Your task to perform on an android device: Clear the cart on ebay. Image 0: 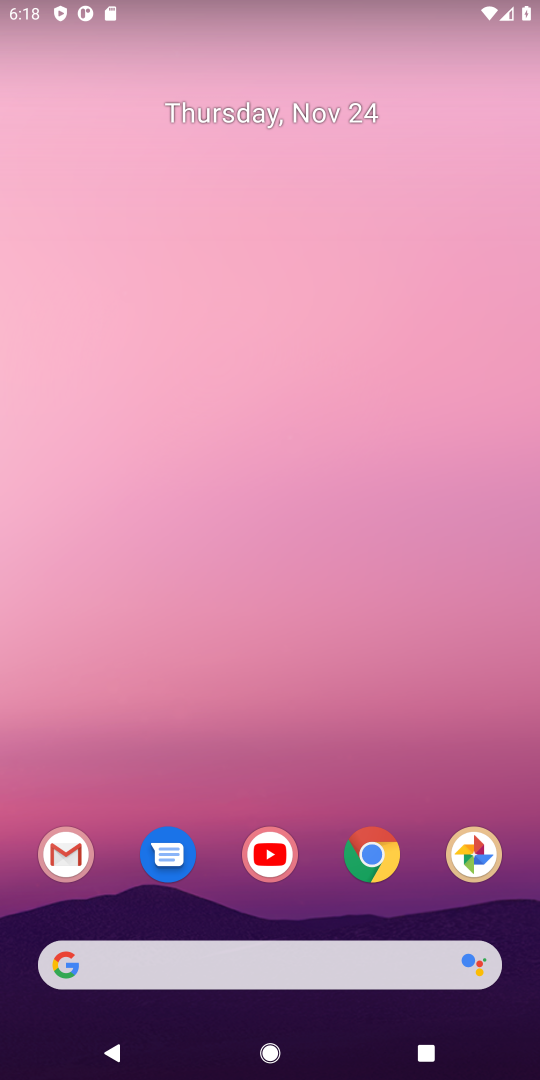
Step 0: click (376, 869)
Your task to perform on an android device: Clear the cart on ebay. Image 1: 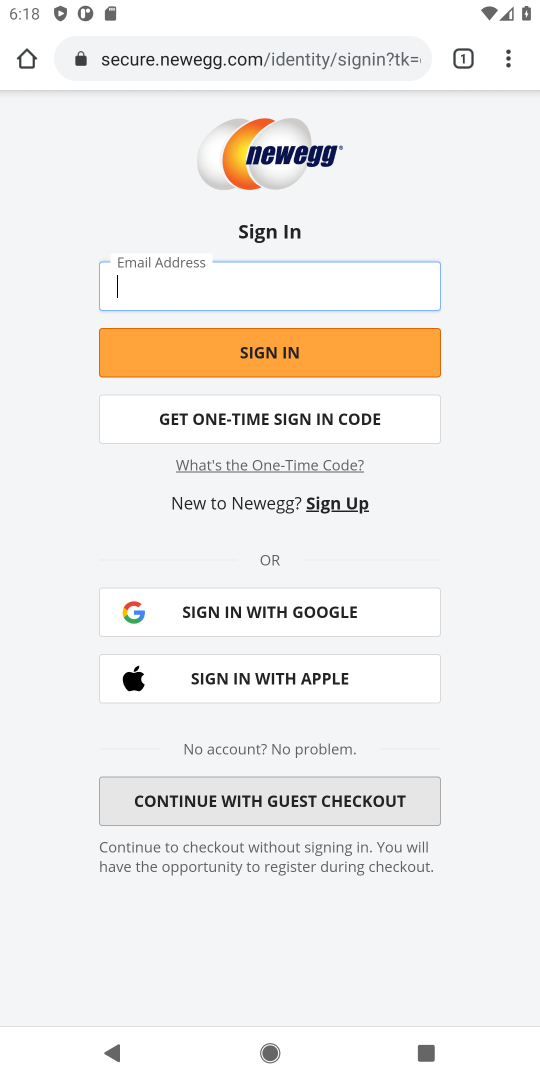
Step 1: click (188, 59)
Your task to perform on an android device: Clear the cart on ebay. Image 2: 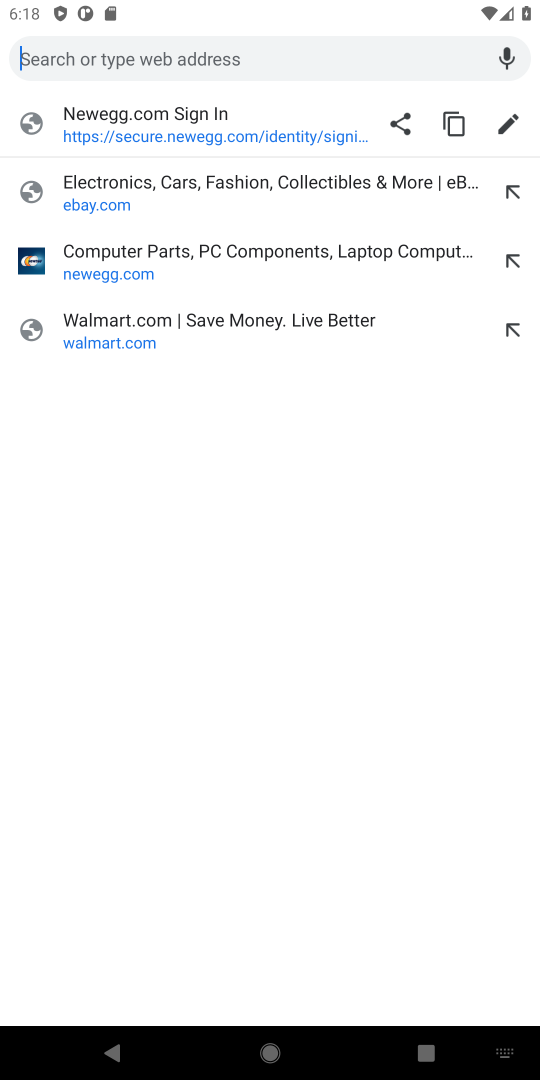
Step 2: click (85, 210)
Your task to perform on an android device: Clear the cart on ebay. Image 3: 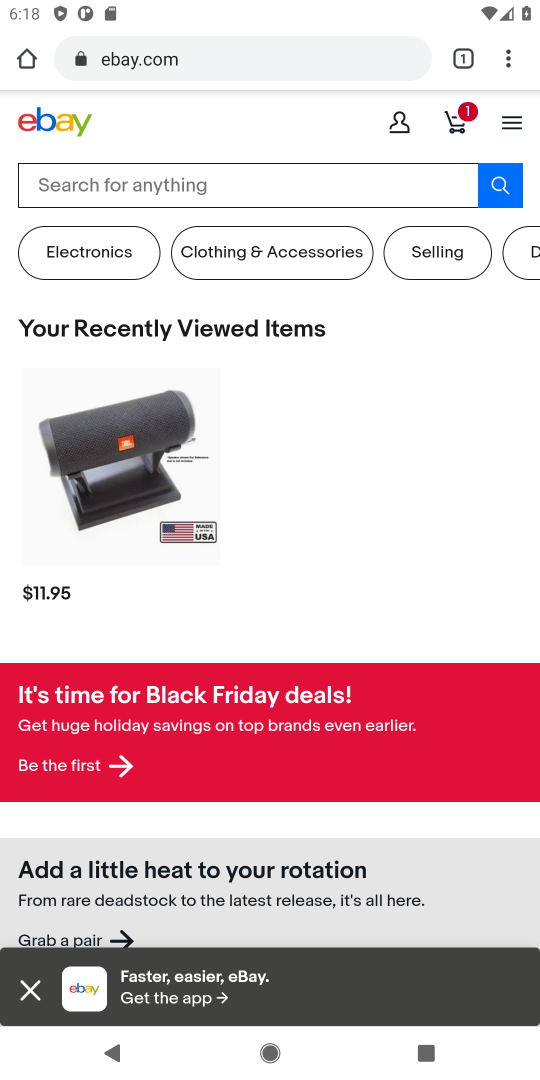
Step 3: click (465, 117)
Your task to perform on an android device: Clear the cart on ebay. Image 4: 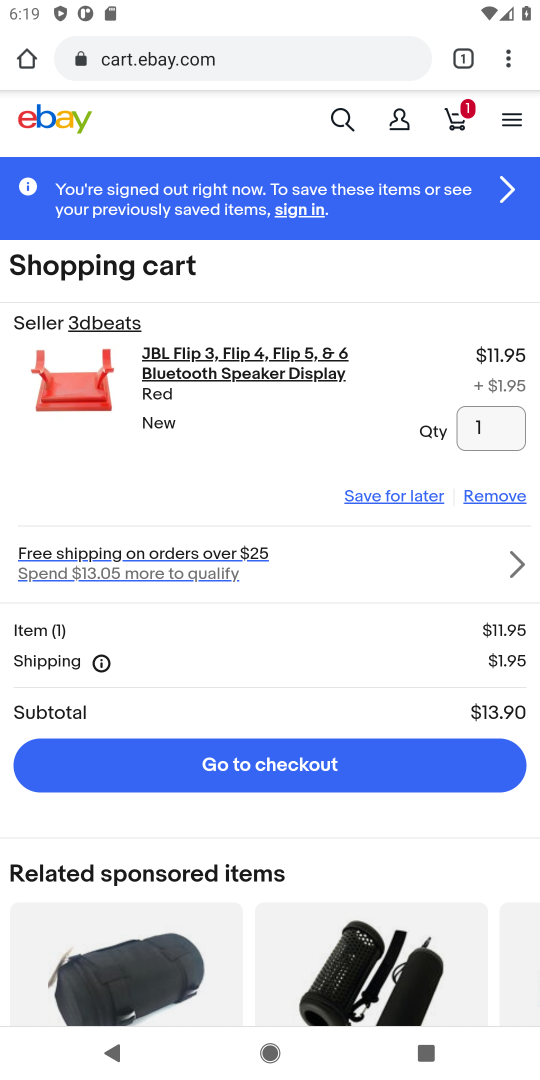
Step 4: click (501, 493)
Your task to perform on an android device: Clear the cart on ebay. Image 5: 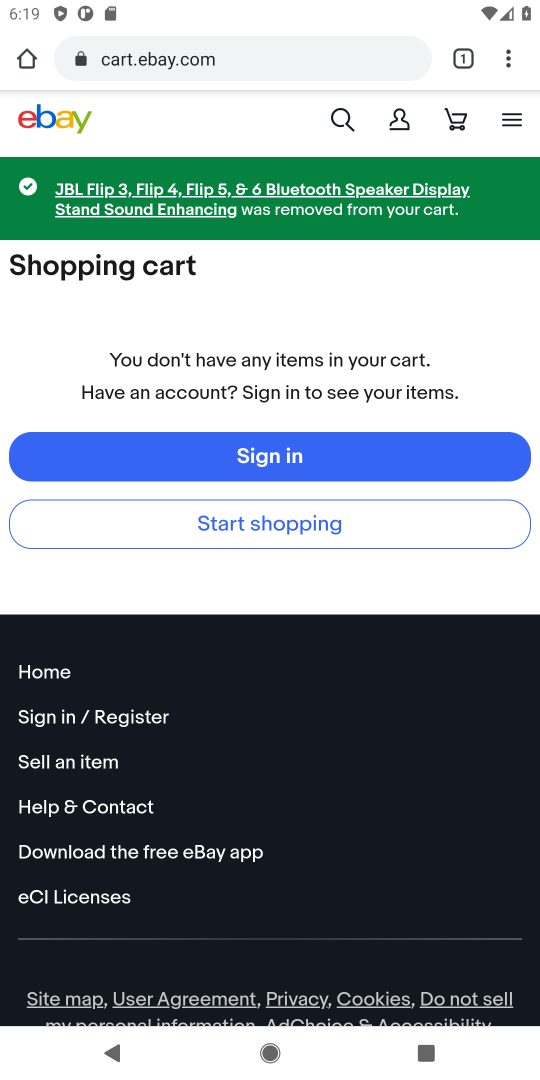
Step 5: task complete